Your task to perform on an android device: turn off location Image 0: 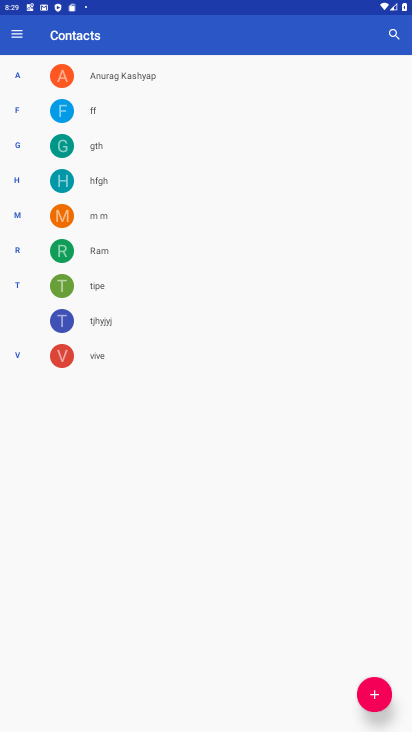
Step 0: press home button
Your task to perform on an android device: turn off location Image 1: 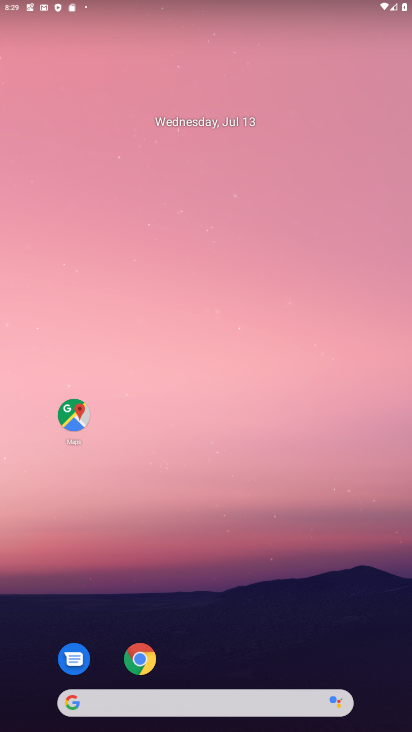
Step 1: drag from (50, 649) to (333, 5)
Your task to perform on an android device: turn off location Image 2: 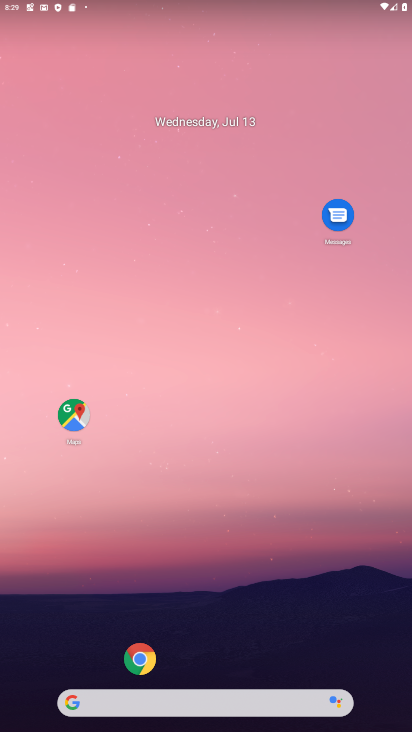
Step 2: drag from (30, 700) to (354, 23)
Your task to perform on an android device: turn off location Image 3: 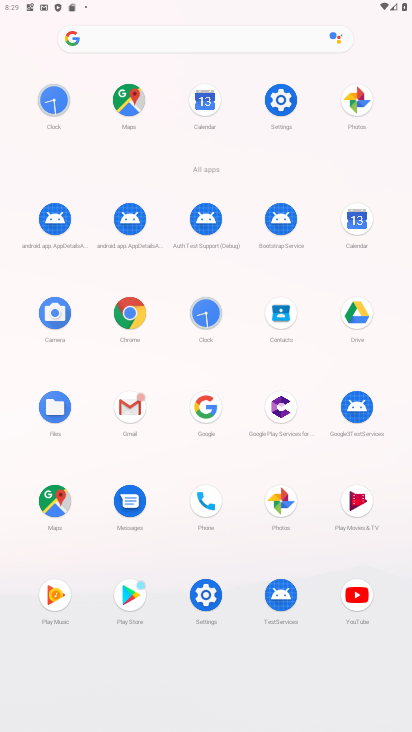
Step 3: click (210, 582)
Your task to perform on an android device: turn off location Image 4: 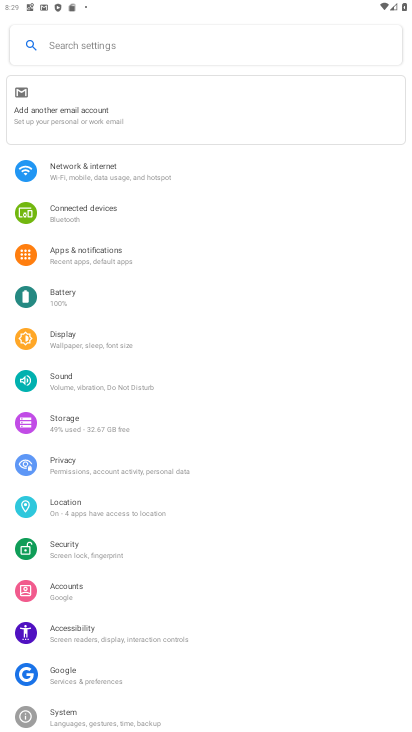
Step 4: click (100, 510)
Your task to perform on an android device: turn off location Image 5: 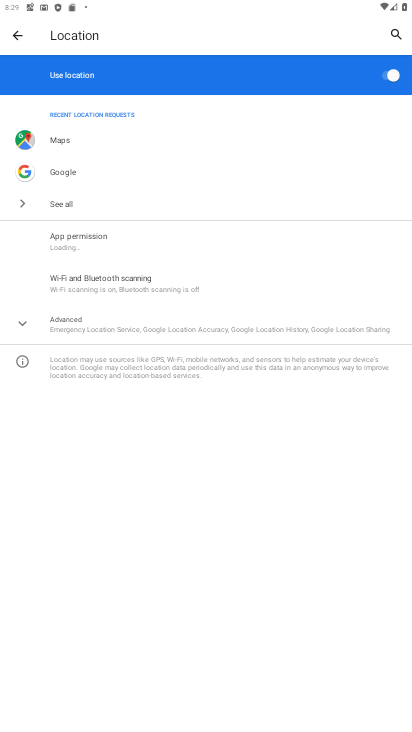
Step 5: click (396, 81)
Your task to perform on an android device: turn off location Image 6: 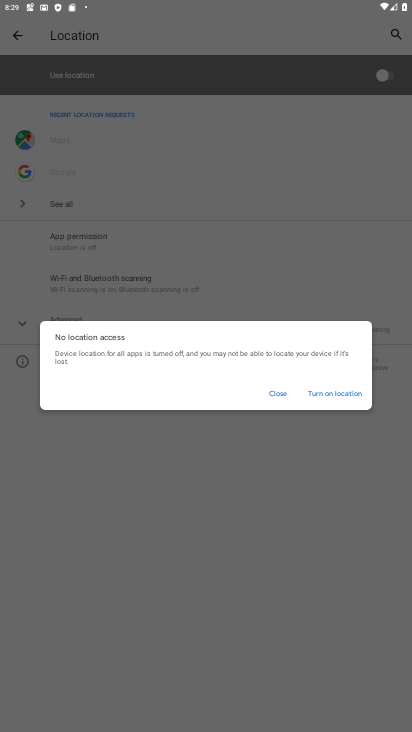
Step 6: click (278, 394)
Your task to perform on an android device: turn off location Image 7: 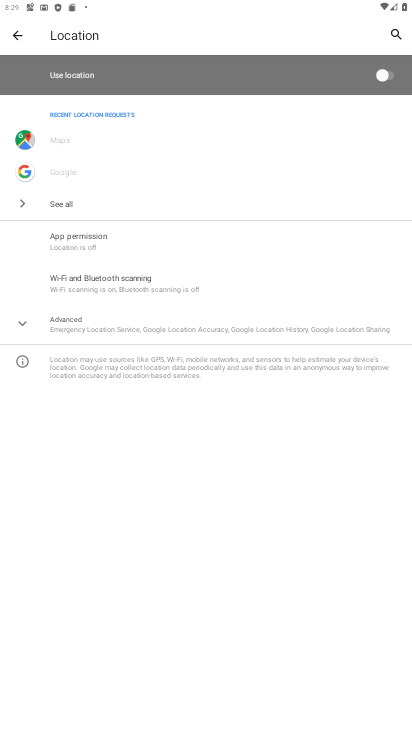
Step 7: task complete